Your task to perform on an android device: Open the Play Movies app and select the watchlist tab. Image 0: 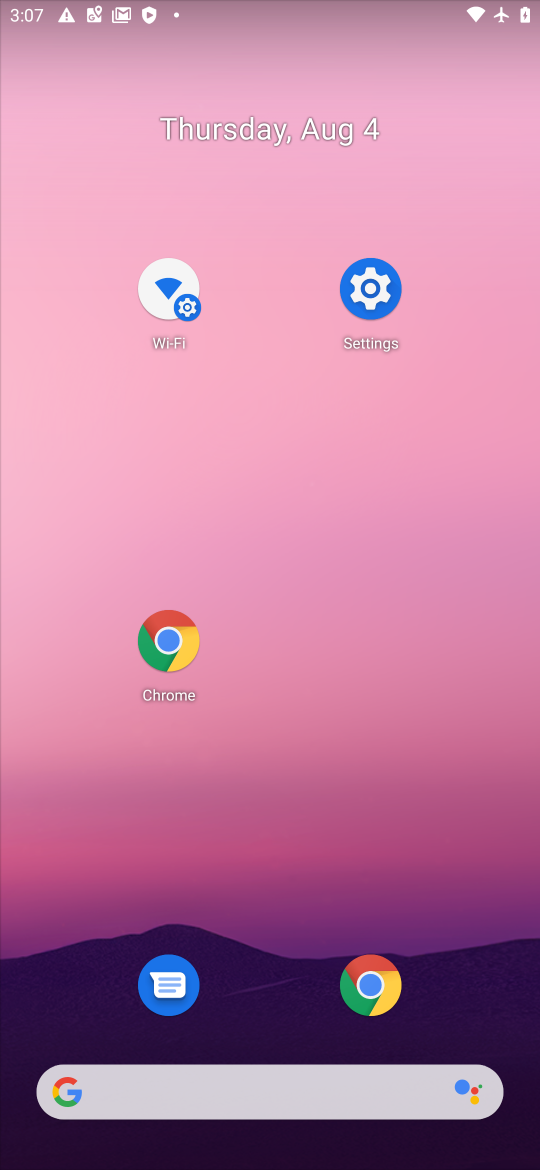
Step 0: drag from (329, 989) to (306, 462)
Your task to perform on an android device: Open the Play Movies app and select the watchlist tab. Image 1: 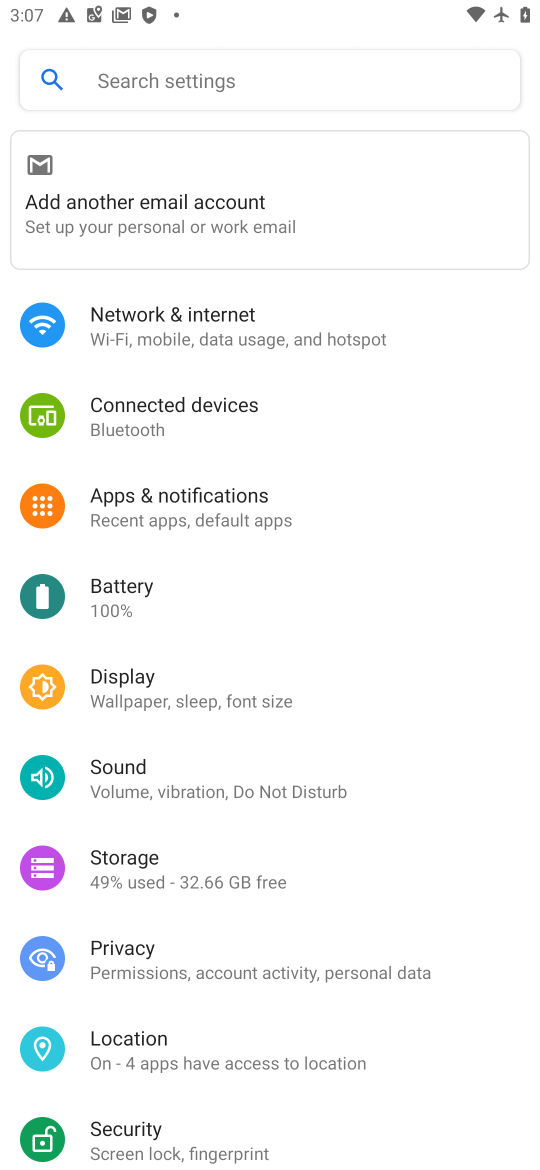
Step 1: press back button
Your task to perform on an android device: Open the Play Movies app and select the watchlist tab. Image 2: 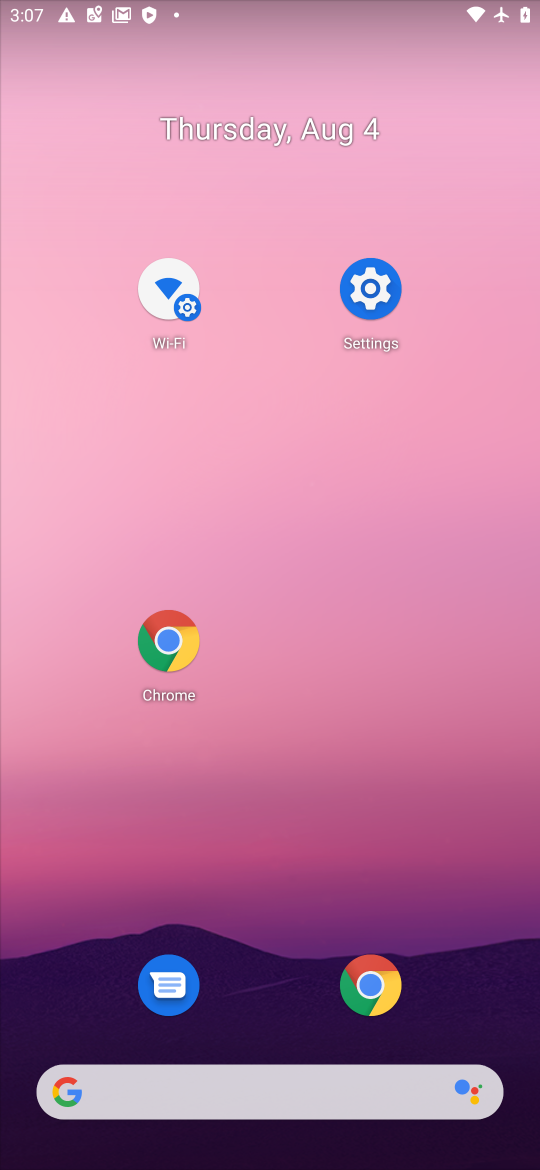
Step 2: drag from (177, 377) to (272, 426)
Your task to perform on an android device: Open the Play Movies app and select the watchlist tab. Image 3: 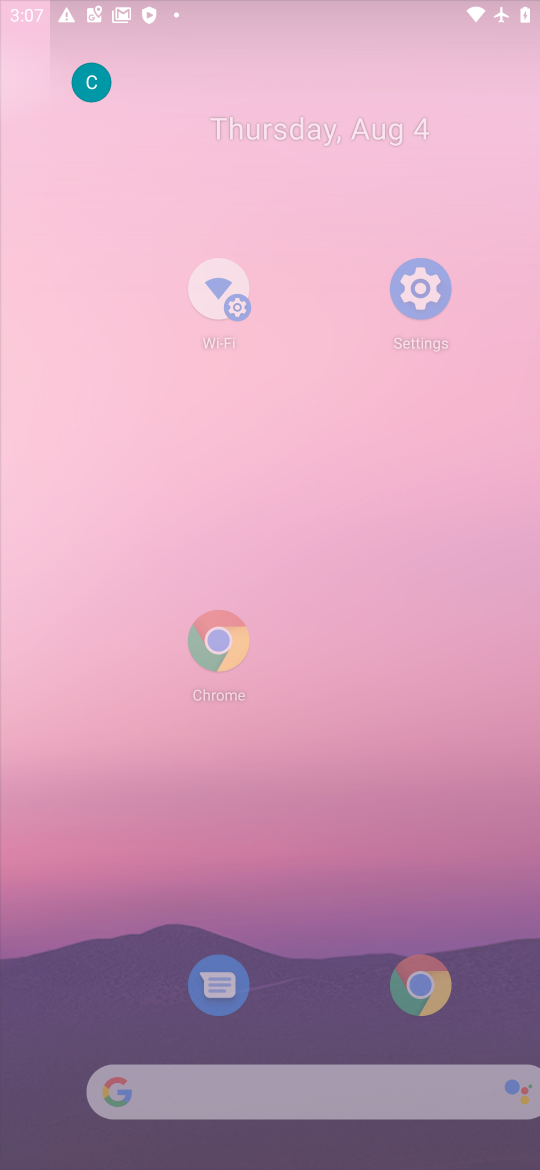
Step 3: drag from (338, 921) to (266, 489)
Your task to perform on an android device: Open the Play Movies app and select the watchlist tab. Image 4: 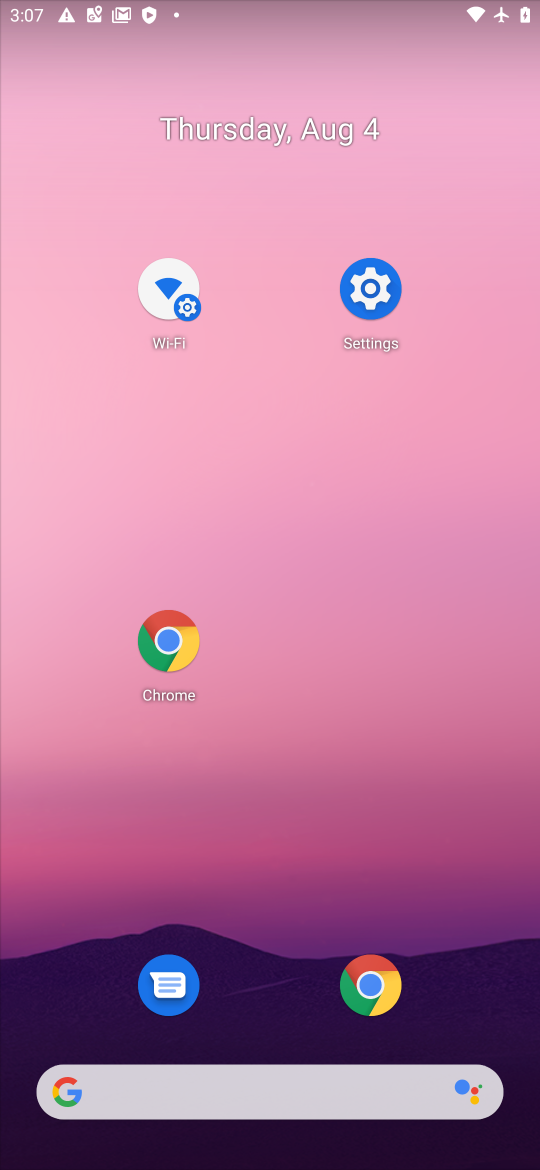
Step 4: click (229, 567)
Your task to perform on an android device: Open the Play Movies app and select the watchlist tab. Image 5: 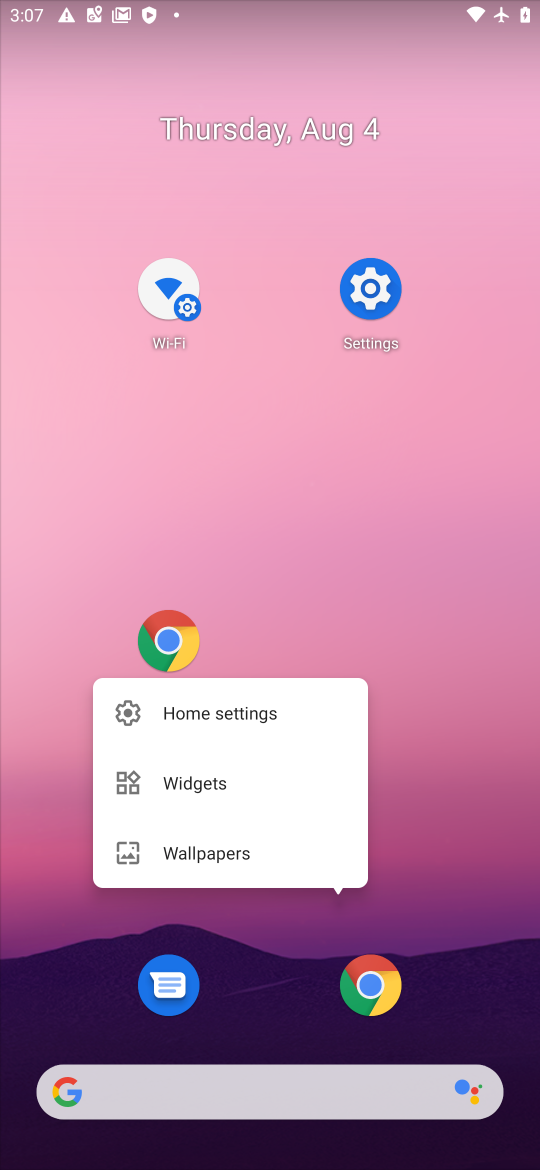
Step 5: drag from (395, 880) to (293, 705)
Your task to perform on an android device: Open the Play Movies app and select the watchlist tab. Image 6: 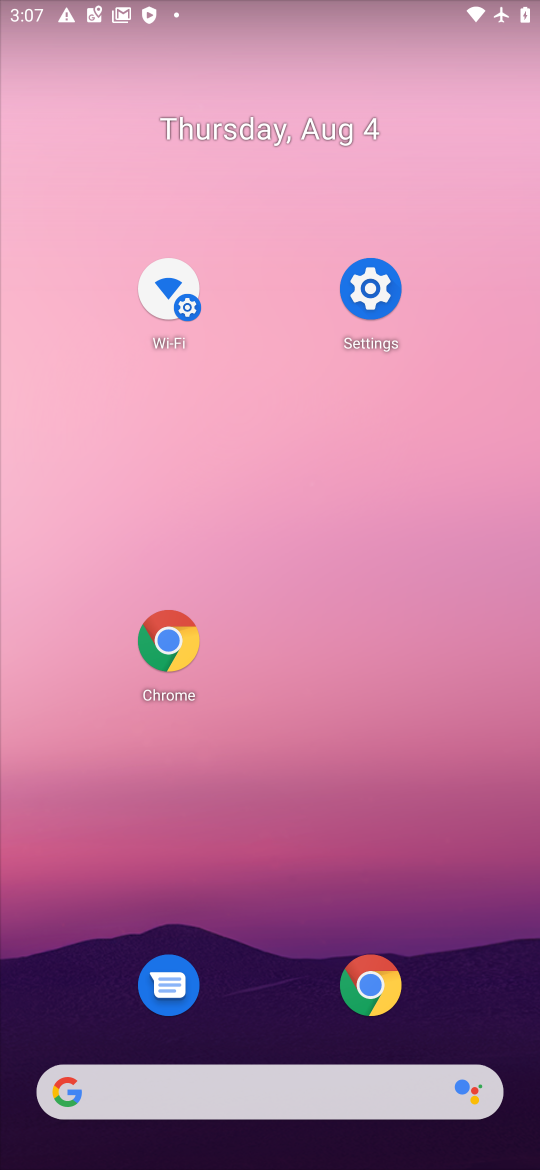
Step 6: drag from (378, 892) to (291, 511)
Your task to perform on an android device: Open the Play Movies app and select the watchlist tab. Image 7: 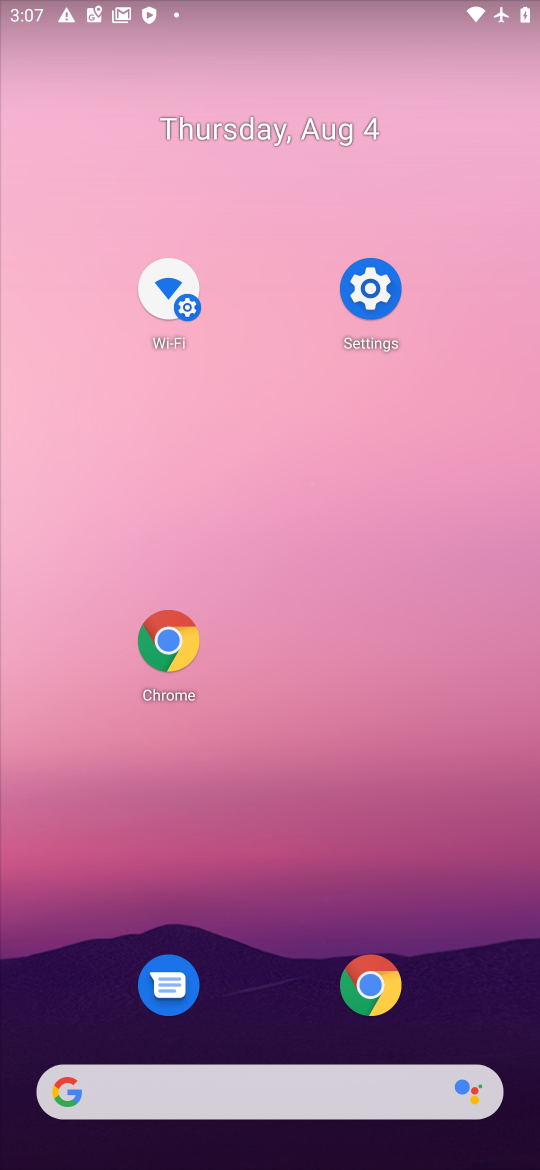
Step 7: drag from (266, 769) to (240, 548)
Your task to perform on an android device: Open the Play Movies app and select the watchlist tab. Image 8: 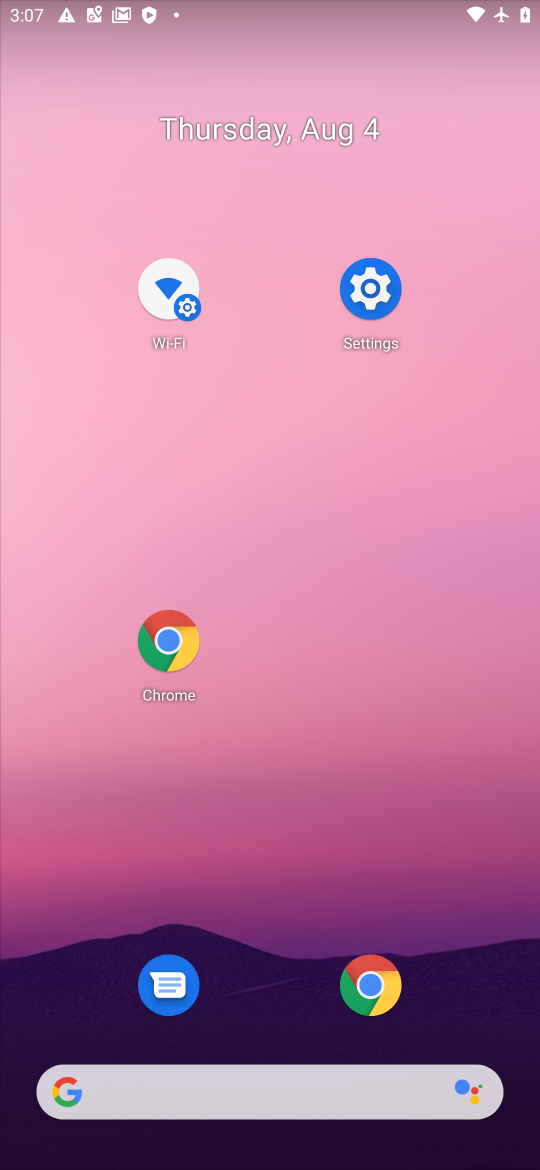
Step 8: drag from (223, 787) to (174, 409)
Your task to perform on an android device: Open the Play Movies app and select the watchlist tab. Image 9: 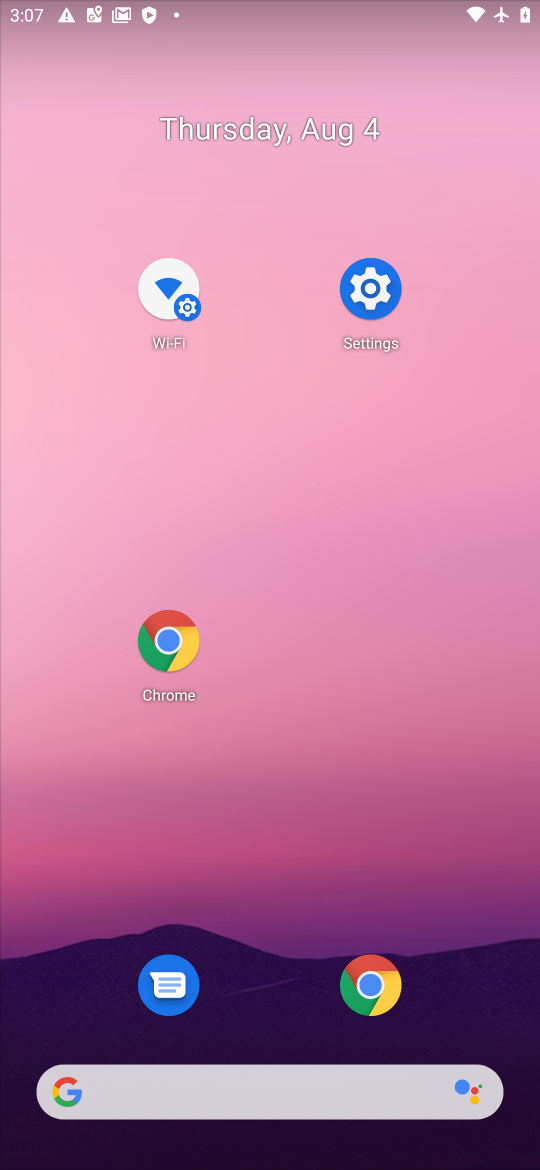
Step 9: drag from (288, 650) to (188, 360)
Your task to perform on an android device: Open the Play Movies app and select the watchlist tab. Image 10: 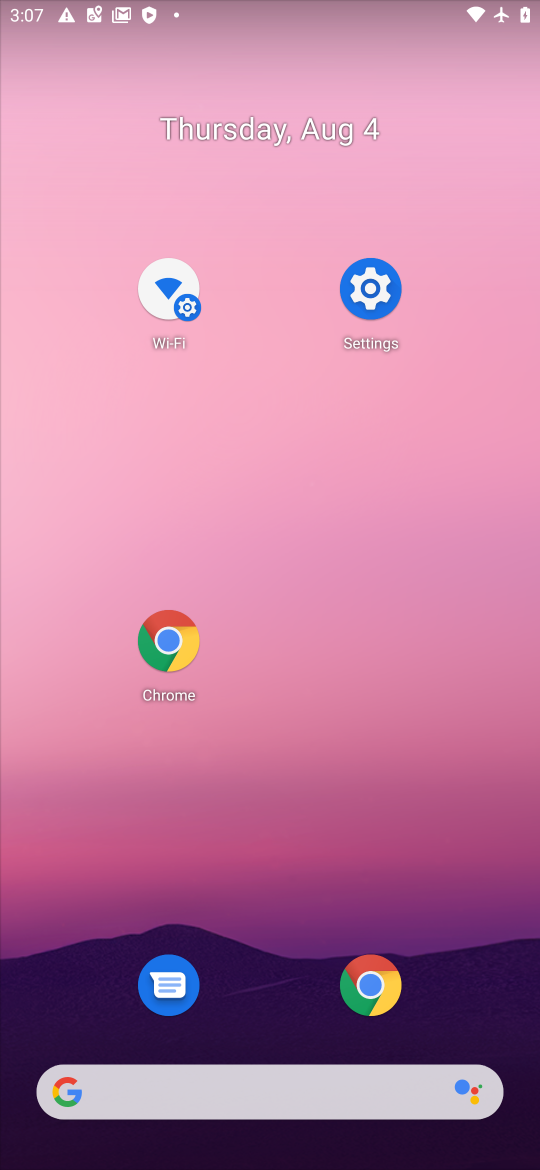
Step 10: drag from (296, 855) to (238, 297)
Your task to perform on an android device: Open the Play Movies app and select the watchlist tab. Image 11: 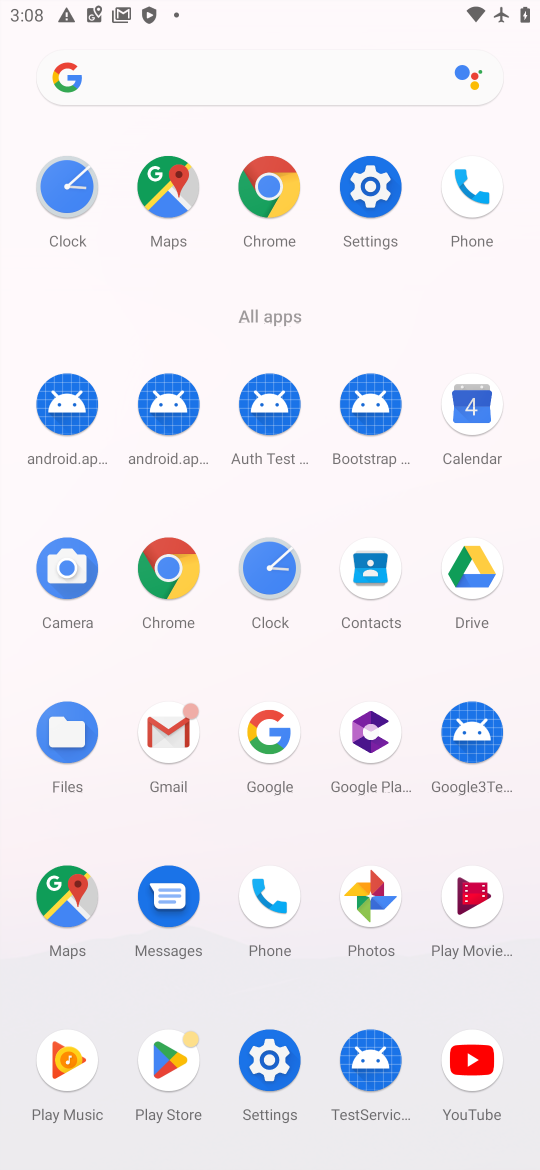
Step 11: click (483, 898)
Your task to perform on an android device: Open the Play Movies app and select the watchlist tab. Image 12: 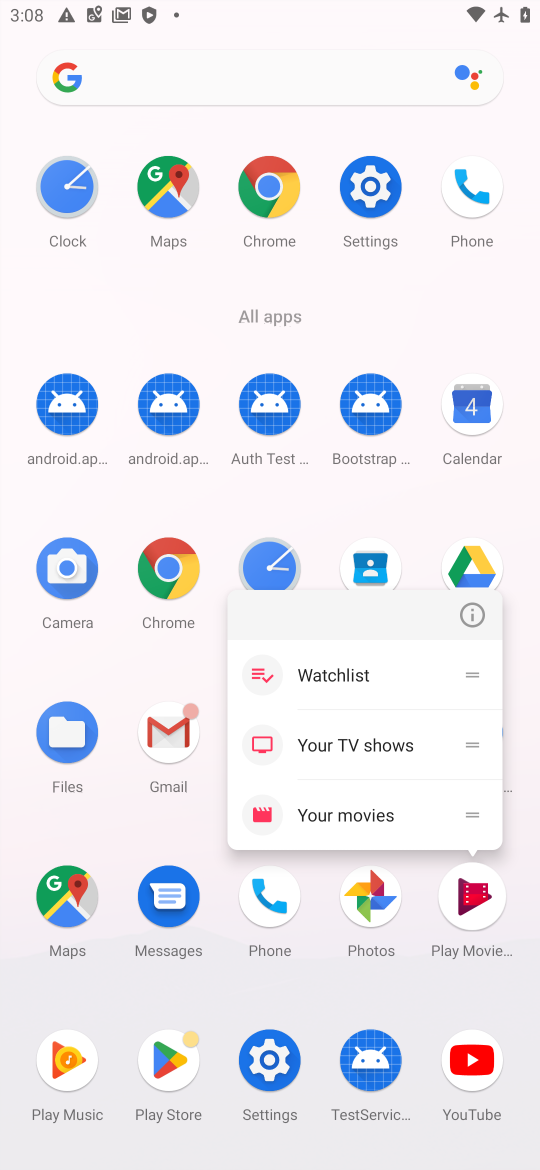
Step 12: click (482, 899)
Your task to perform on an android device: Open the Play Movies app and select the watchlist tab. Image 13: 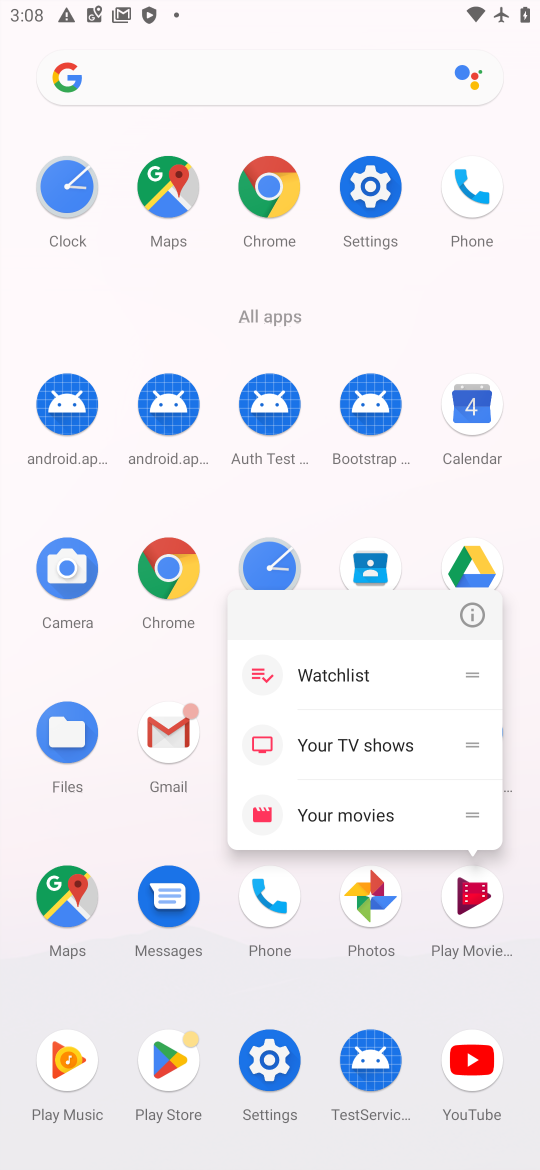
Step 13: click (475, 899)
Your task to perform on an android device: Open the Play Movies app and select the watchlist tab. Image 14: 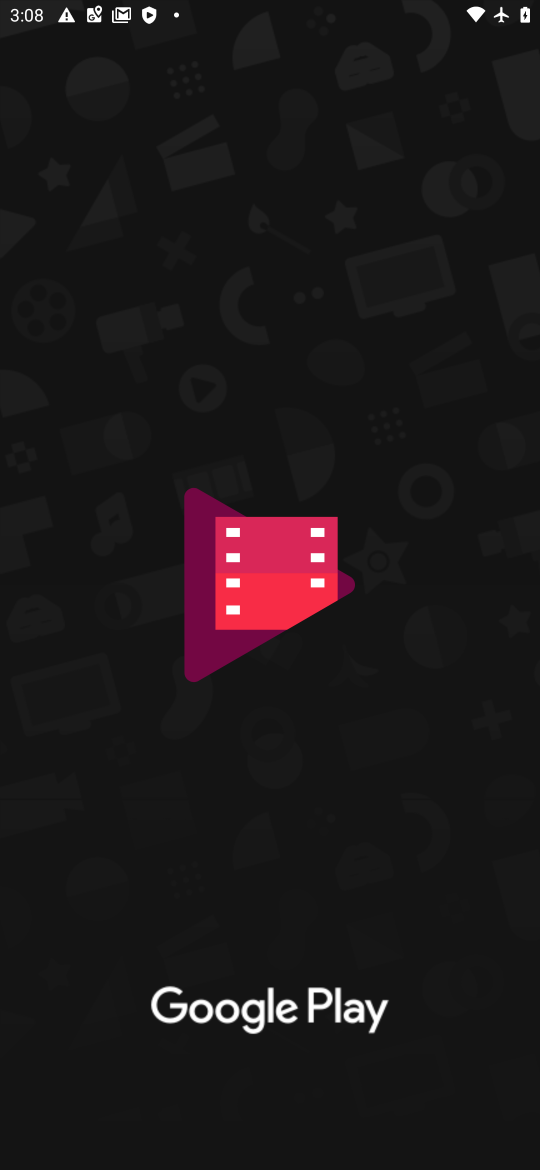
Step 14: click (323, 1034)
Your task to perform on an android device: Open the Play Movies app and select the watchlist tab. Image 15: 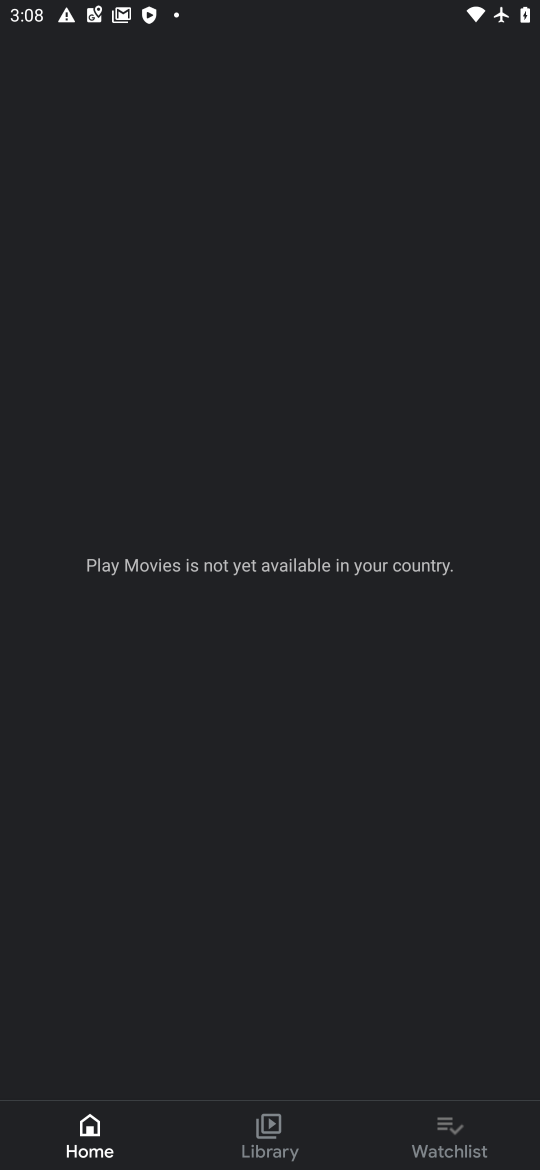
Step 15: click (323, 1034)
Your task to perform on an android device: Open the Play Movies app and select the watchlist tab. Image 16: 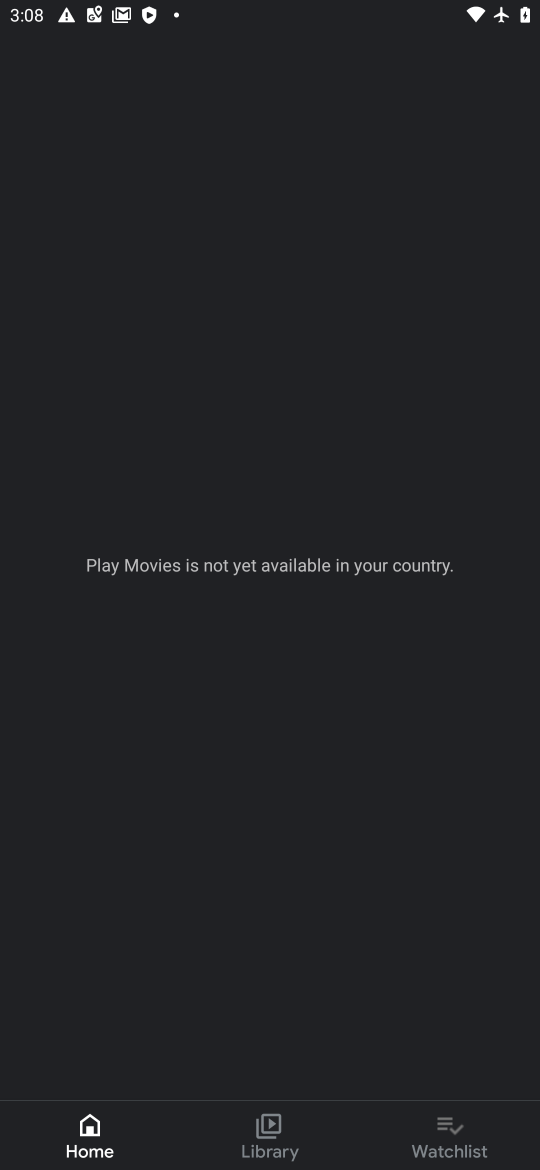
Step 16: click (322, 1032)
Your task to perform on an android device: Open the Play Movies app and select the watchlist tab. Image 17: 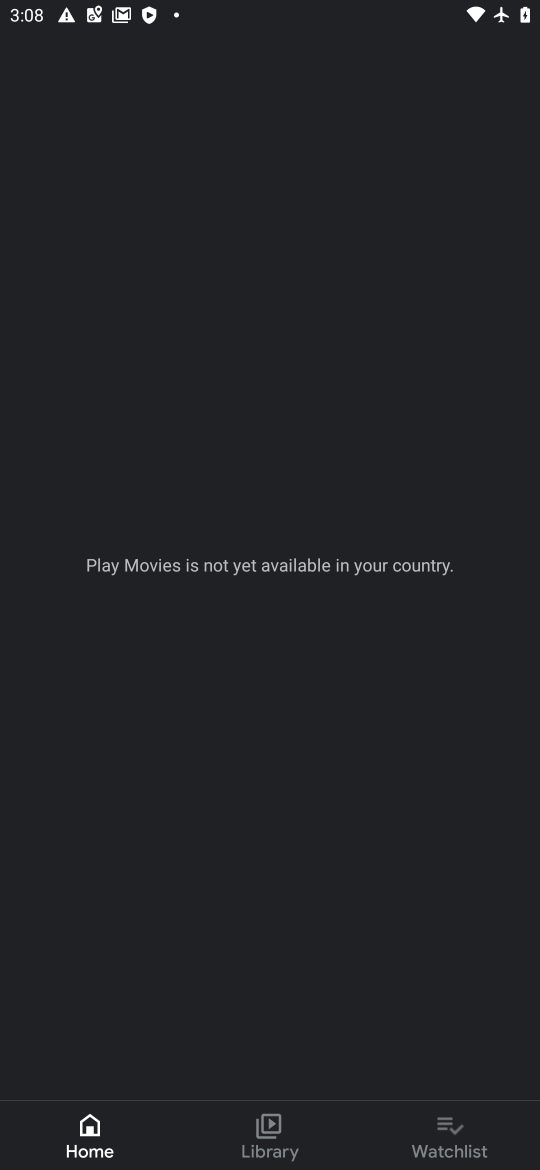
Step 17: click (441, 1121)
Your task to perform on an android device: Open the Play Movies app and select the watchlist tab. Image 18: 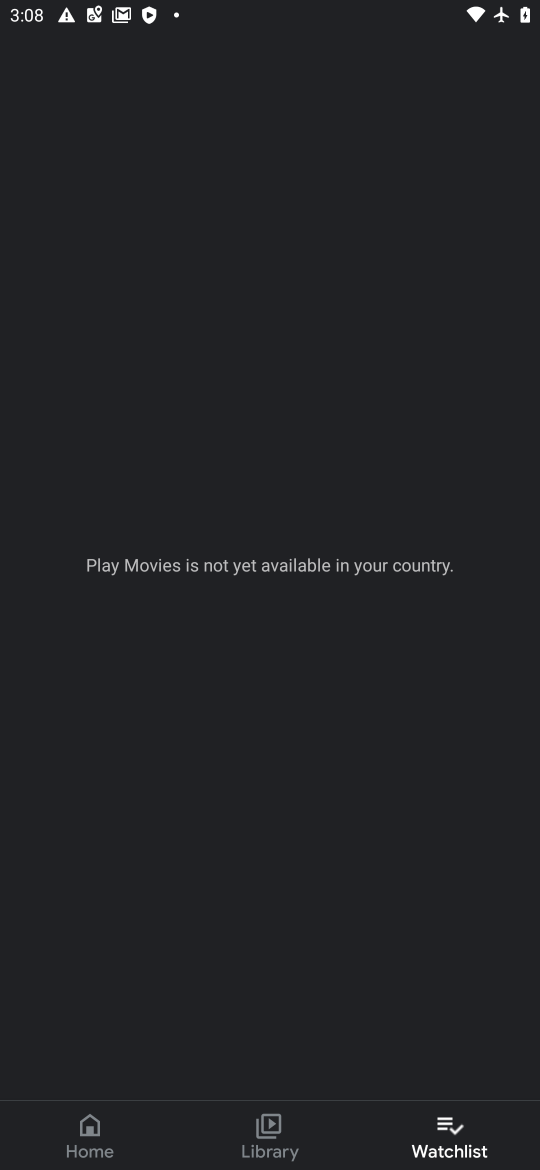
Step 18: task complete